Your task to perform on an android device: When is my next appointment? Image 0: 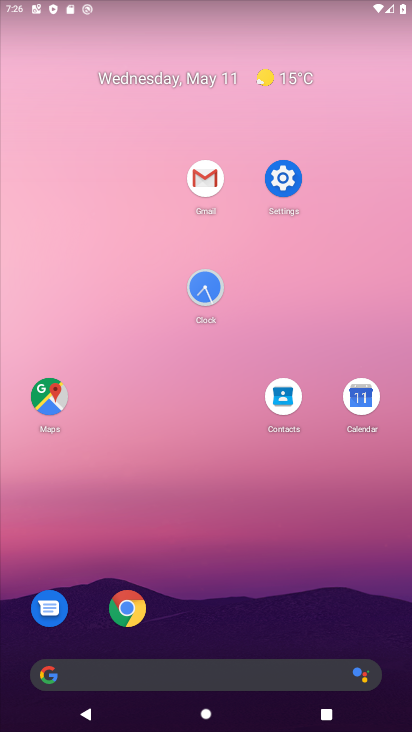
Step 0: click (359, 389)
Your task to perform on an android device: When is my next appointment? Image 1: 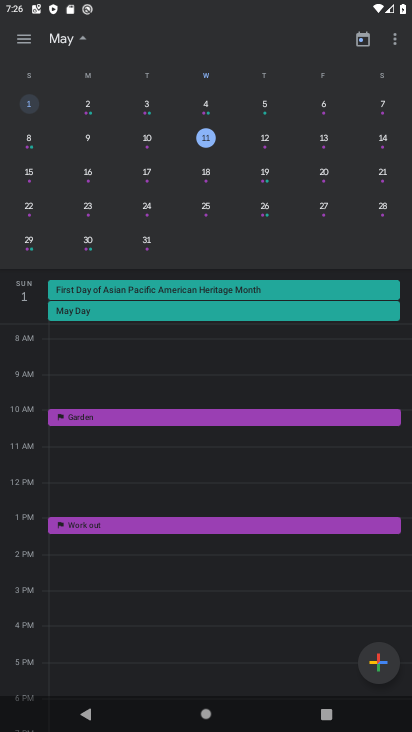
Step 1: task complete